Your task to perform on an android device: turn off notifications settings in the gmail app Image 0: 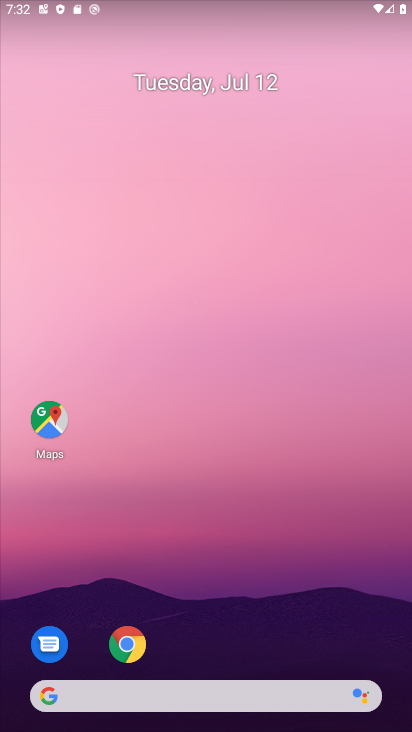
Step 0: drag from (217, 670) to (351, 287)
Your task to perform on an android device: turn off notifications settings in the gmail app Image 1: 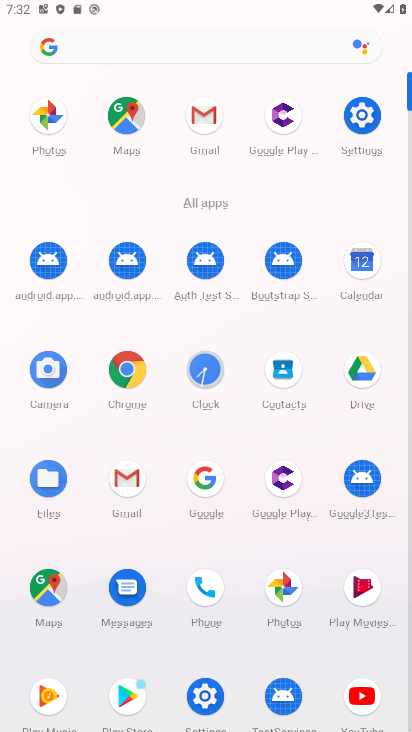
Step 1: click (116, 476)
Your task to perform on an android device: turn off notifications settings in the gmail app Image 2: 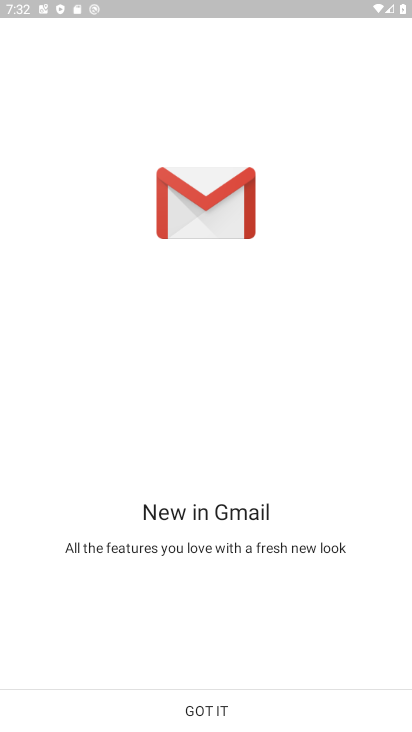
Step 2: click (211, 715)
Your task to perform on an android device: turn off notifications settings in the gmail app Image 3: 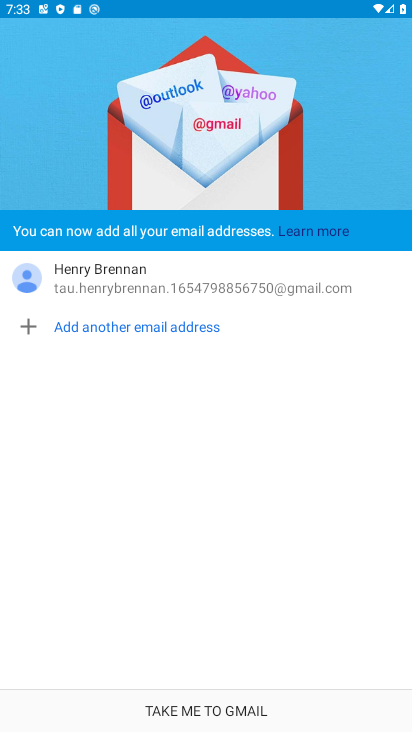
Step 3: click (209, 713)
Your task to perform on an android device: turn off notifications settings in the gmail app Image 4: 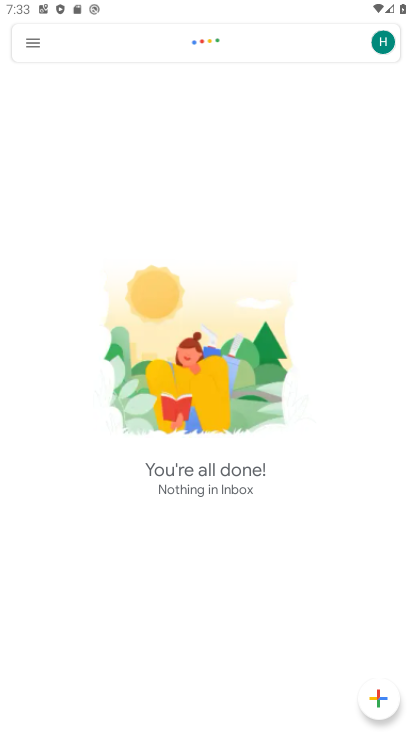
Step 4: click (35, 38)
Your task to perform on an android device: turn off notifications settings in the gmail app Image 5: 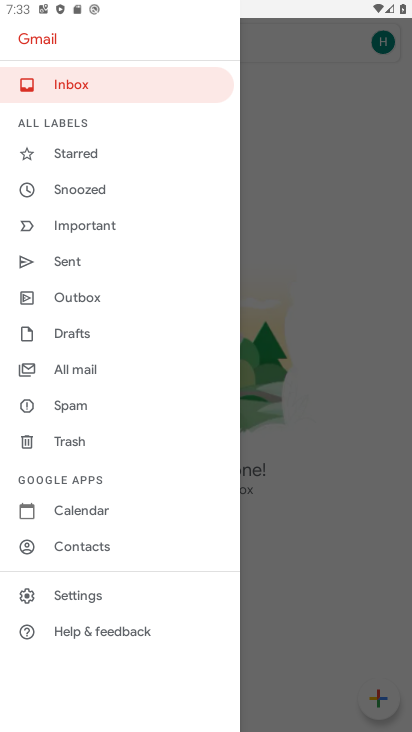
Step 5: click (80, 596)
Your task to perform on an android device: turn off notifications settings in the gmail app Image 6: 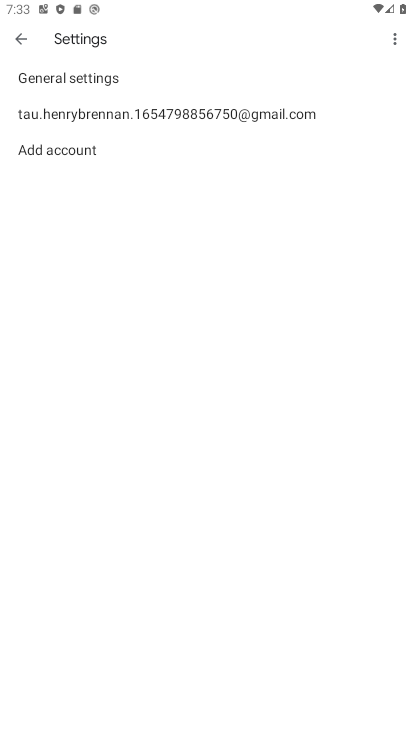
Step 6: click (113, 113)
Your task to perform on an android device: turn off notifications settings in the gmail app Image 7: 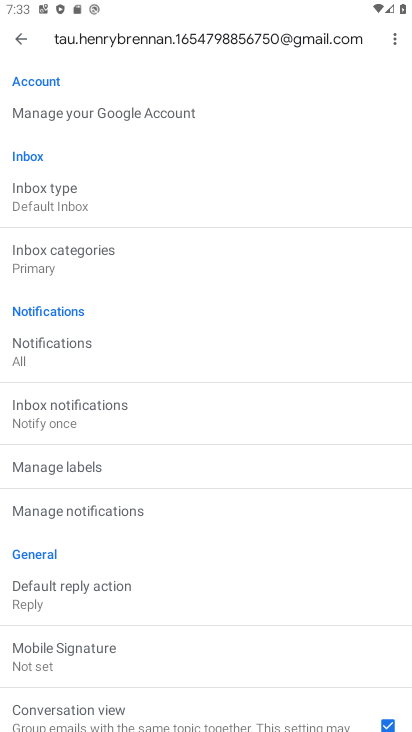
Step 7: click (51, 506)
Your task to perform on an android device: turn off notifications settings in the gmail app Image 8: 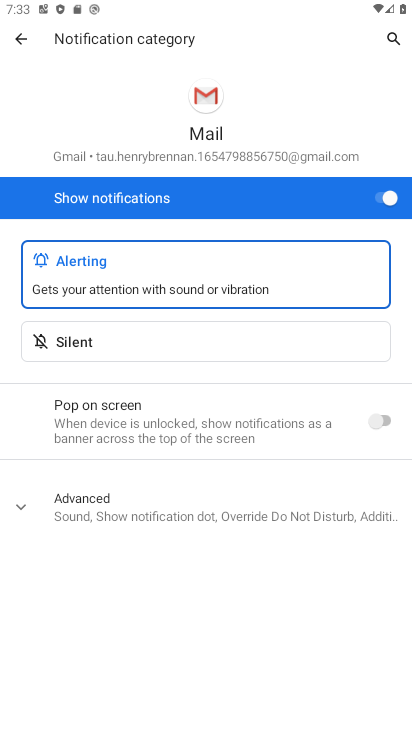
Step 8: click (381, 198)
Your task to perform on an android device: turn off notifications settings in the gmail app Image 9: 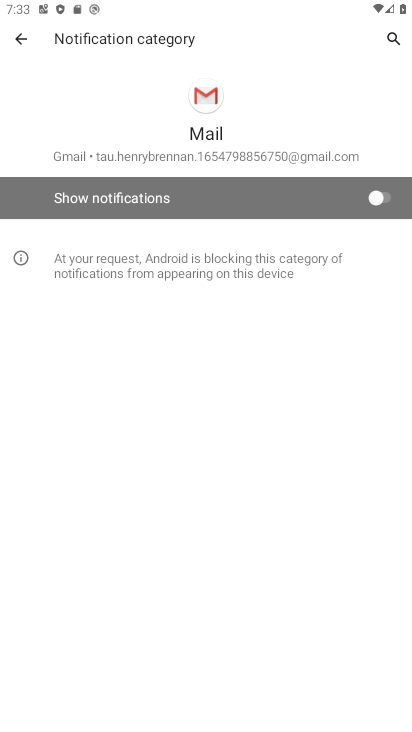
Step 9: task complete